Your task to perform on an android device: make emails show in primary in the gmail app Image 0: 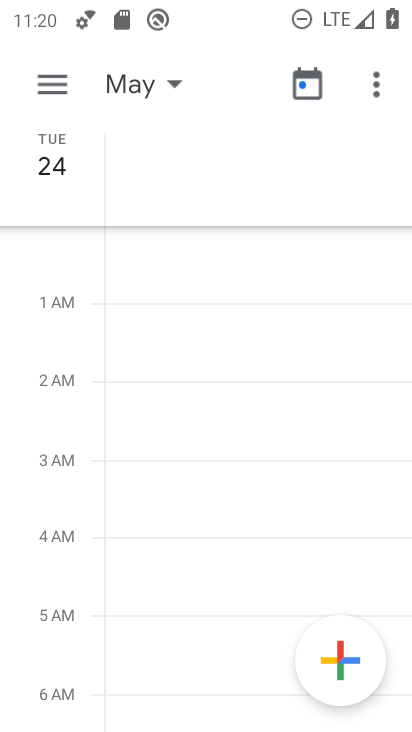
Step 0: press home button
Your task to perform on an android device: make emails show in primary in the gmail app Image 1: 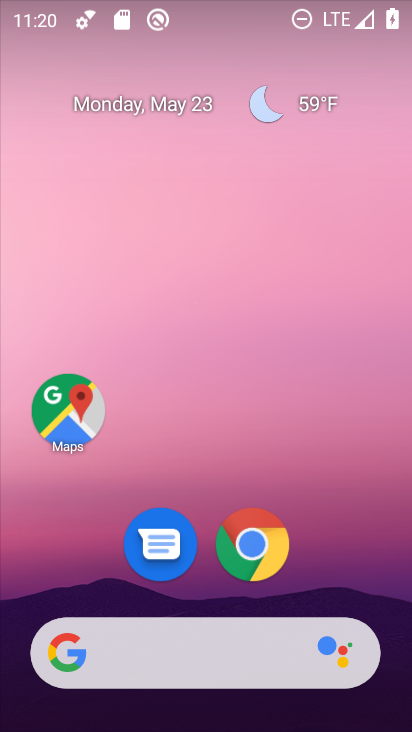
Step 1: drag from (388, 597) to (338, 69)
Your task to perform on an android device: make emails show in primary in the gmail app Image 2: 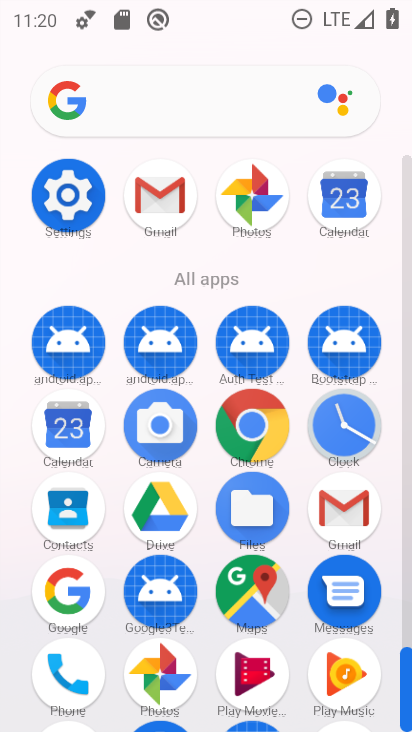
Step 2: click (343, 504)
Your task to perform on an android device: make emails show in primary in the gmail app Image 3: 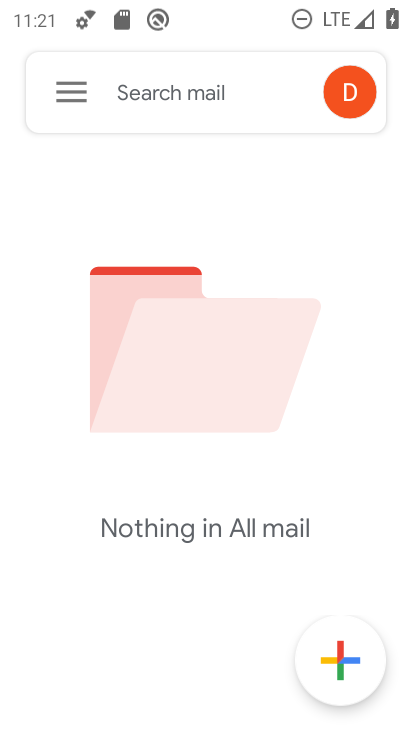
Step 3: click (65, 90)
Your task to perform on an android device: make emails show in primary in the gmail app Image 4: 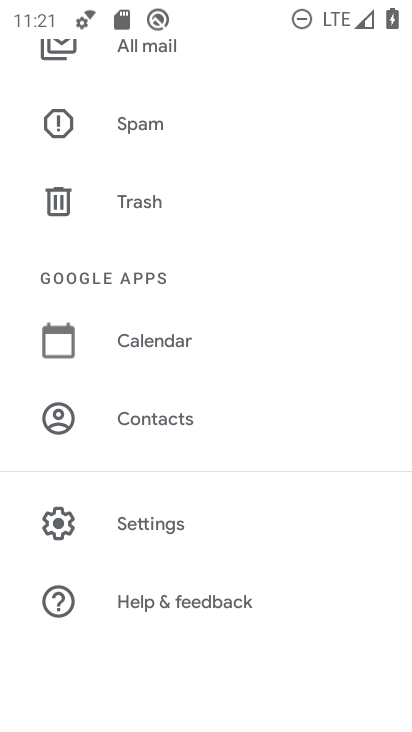
Step 4: click (131, 524)
Your task to perform on an android device: make emails show in primary in the gmail app Image 5: 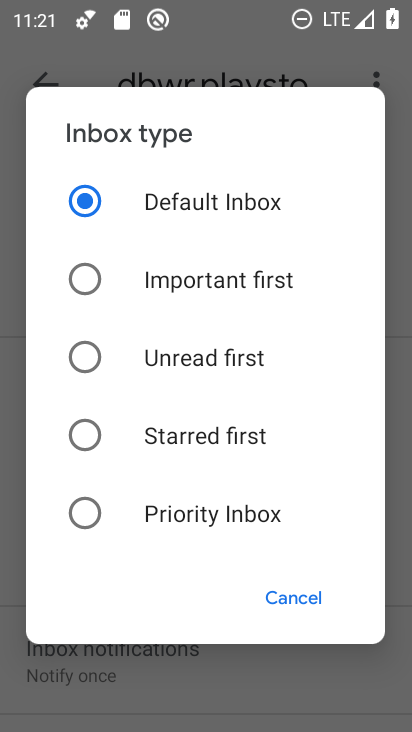
Step 5: click (277, 597)
Your task to perform on an android device: make emails show in primary in the gmail app Image 6: 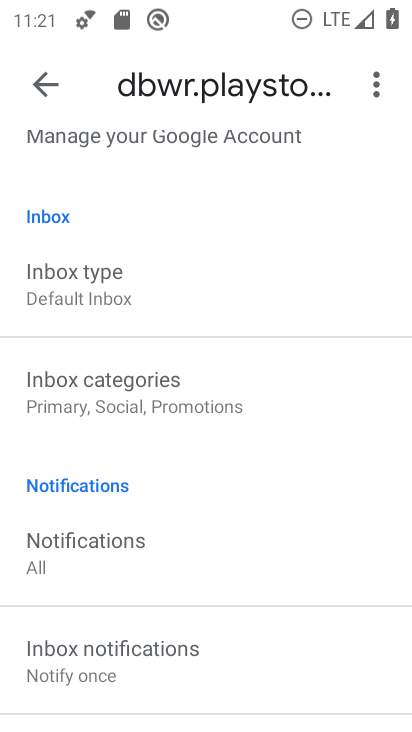
Step 6: click (89, 379)
Your task to perform on an android device: make emails show in primary in the gmail app Image 7: 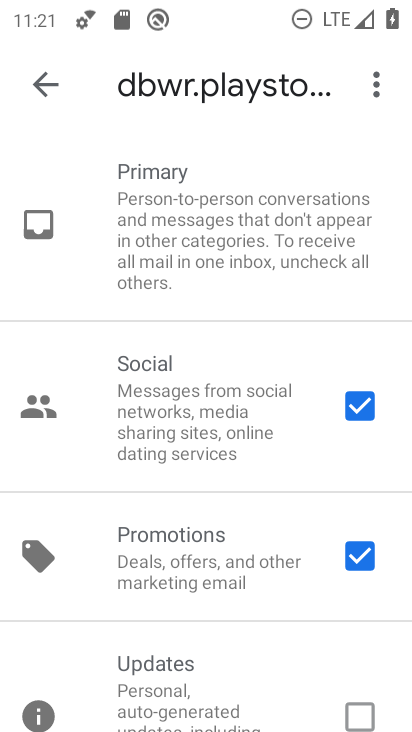
Step 7: click (364, 408)
Your task to perform on an android device: make emails show in primary in the gmail app Image 8: 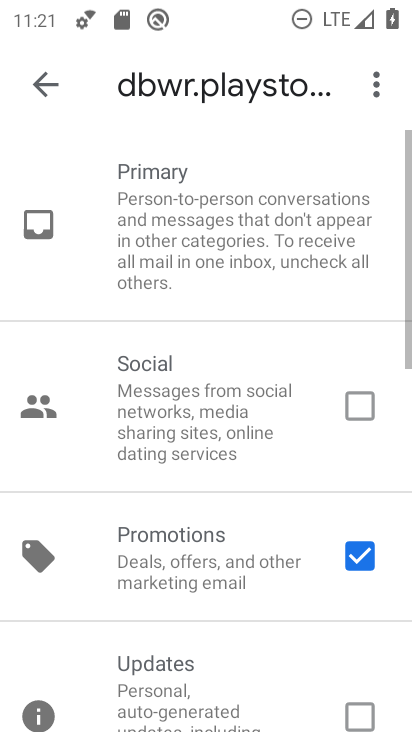
Step 8: click (356, 556)
Your task to perform on an android device: make emails show in primary in the gmail app Image 9: 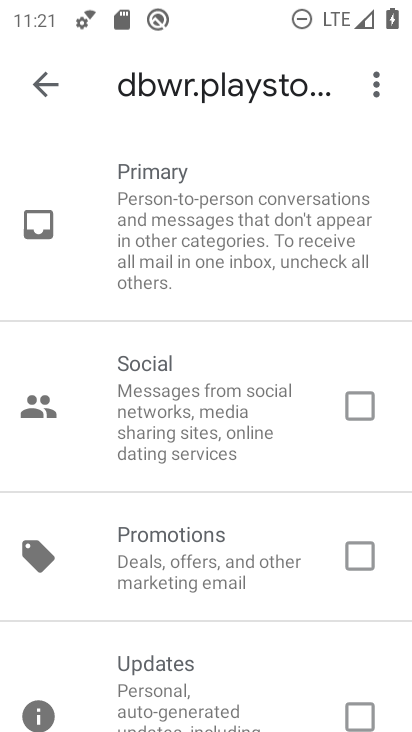
Step 9: task complete